Your task to perform on an android device: Open the Play Movies app and select the watchlist tab. Image 0: 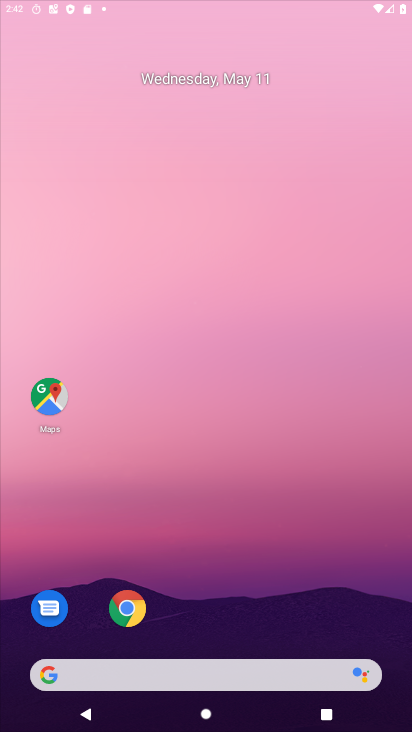
Step 0: press home button
Your task to perform on an android device: Open the Play Movies app and select the watchlist tab. Image 1: 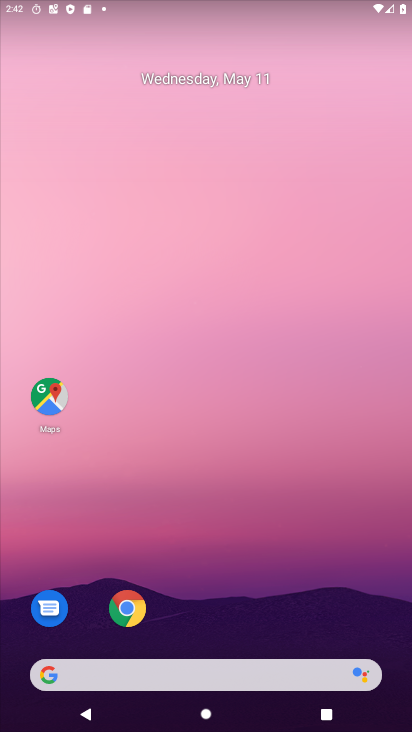
Step 1: drag from (287, 605) to (321, 214)
Your task to perform on an android device: Open the Play Movies app and select the watchlist tab. Image 2: 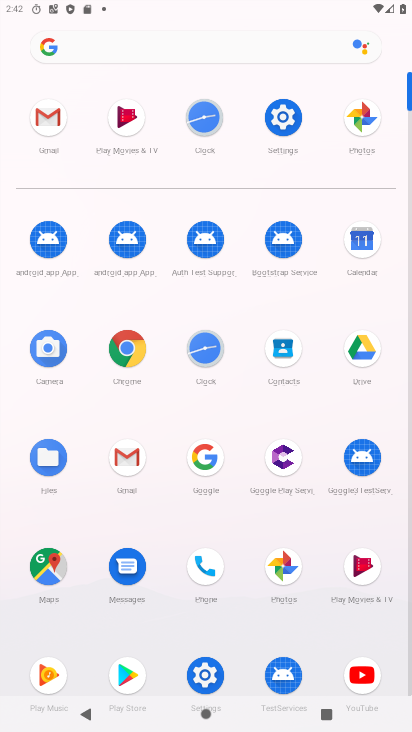
Step 2: drag from (157, 697) to (190, 438)
Your task to perform on an android device: Open the Play Movies app and select the watchlist tab. Image 3: 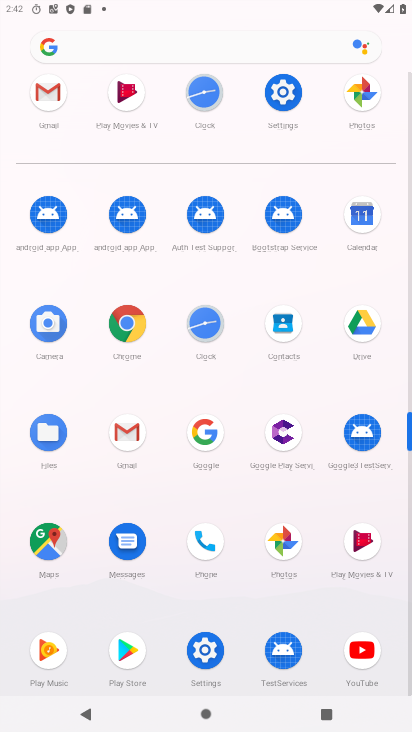
Step 3: drag from (168, 374) to (134, 728)
Your task to perform on an android device: Open the Play Movies app and select the watchlist tab. Image 4: 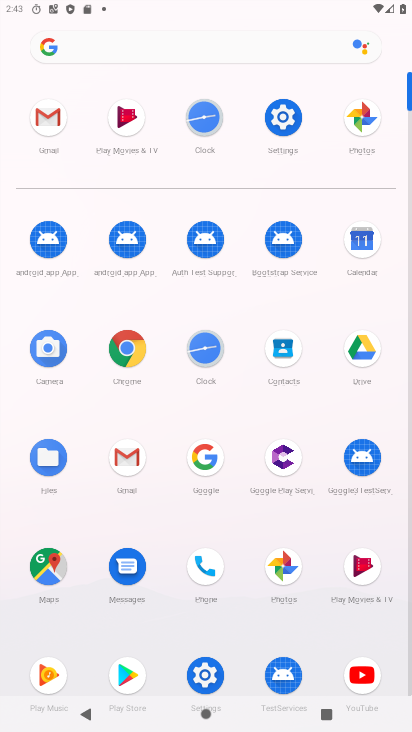
Step 4: click (361, 568)
Your task to perform on an android device: Open the Play Movies app and select the watchlist tab. Image 5: 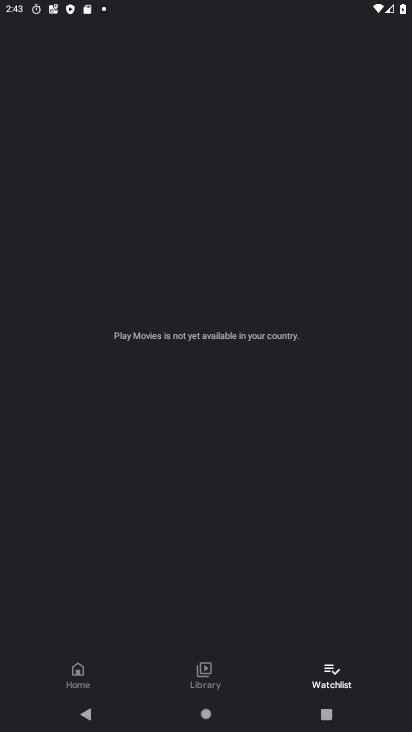
Step 5: task complete